Your task to perform on an android device: Play the last video I watched on Youtube Image 0: 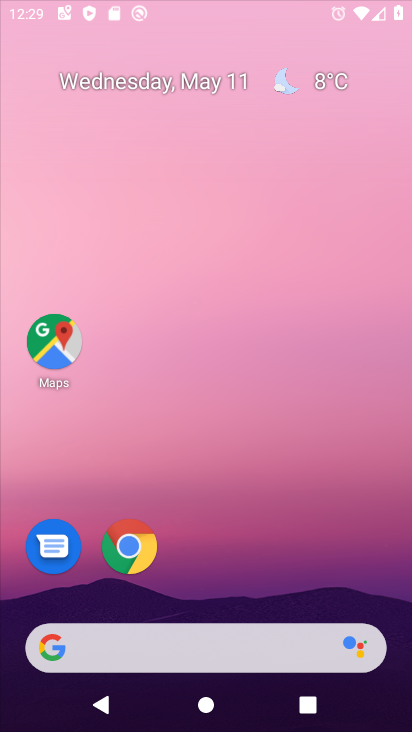
Step 0: click (120, 551)
Your task to perform on an android device: Play the last video I watched on Youtube Image 1: 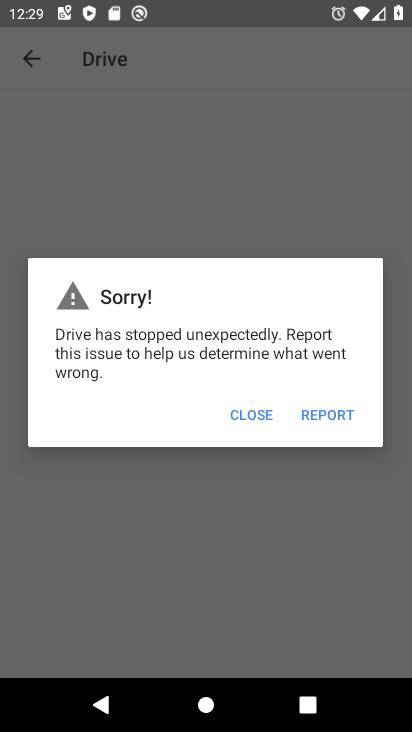
Step 1: press home button
Your task to perform on an android device: Play the last video I watched on Youtube Image 2: 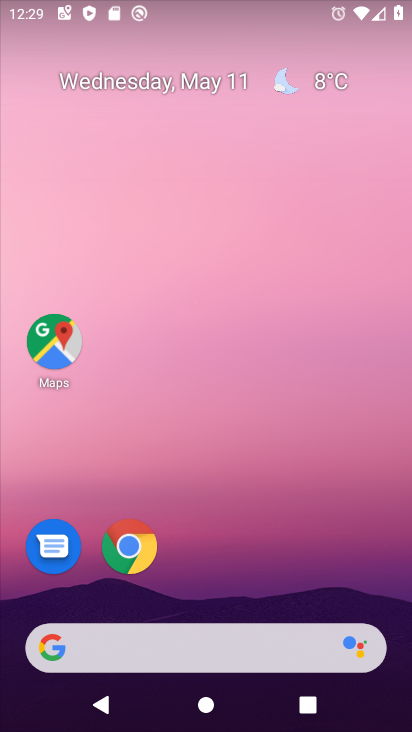
Step 2: drag from (199, 619) to (347, 148)
Your task to perform on an android device: Play the last video I watched on Youtube Image 3: 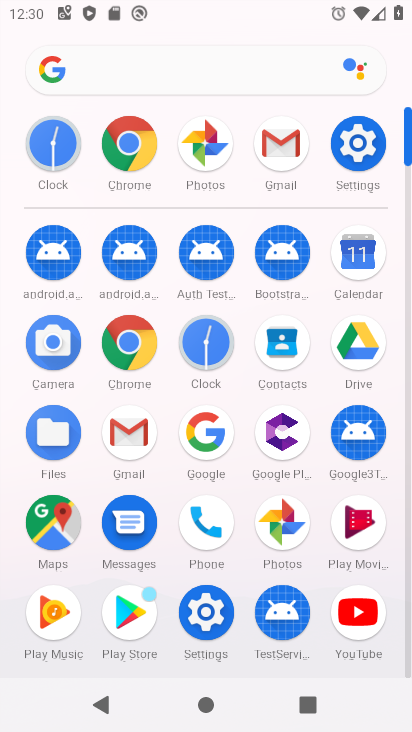
Step 3: click (356, 625)
Your task to perform on an android device: Play the last video I watched on Youtube Image 4: 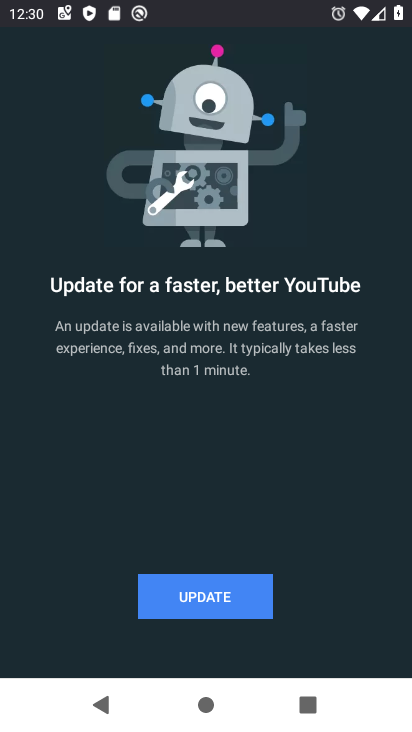
Step 4: click (198, 600)
Your task to perform on an android device: Play the last video I watched on Youtube Image 5: 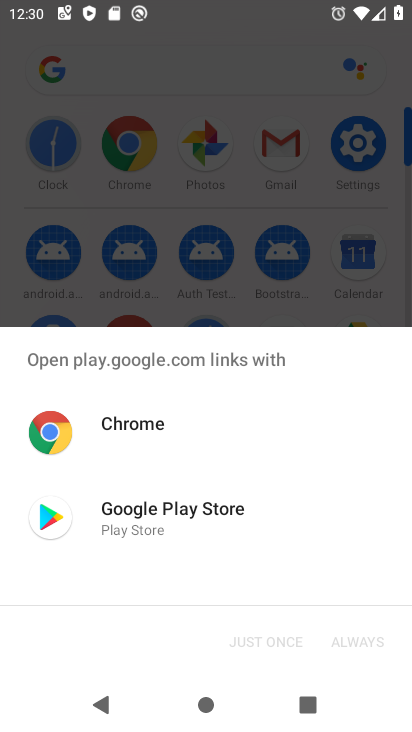
Step 5: click (220, 505)
Your task to perform on an android device: Play the last video I watched on Youtube Image 6: 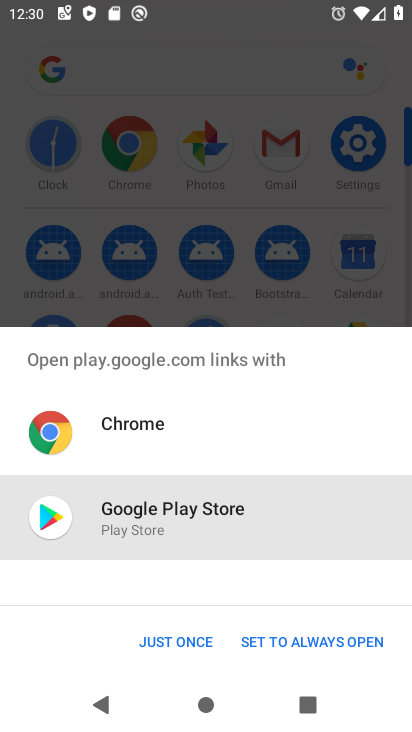
Step 6: click (197, 638)
Your task to perform on an android device: Play the last video I watched on Youtube Image 7: 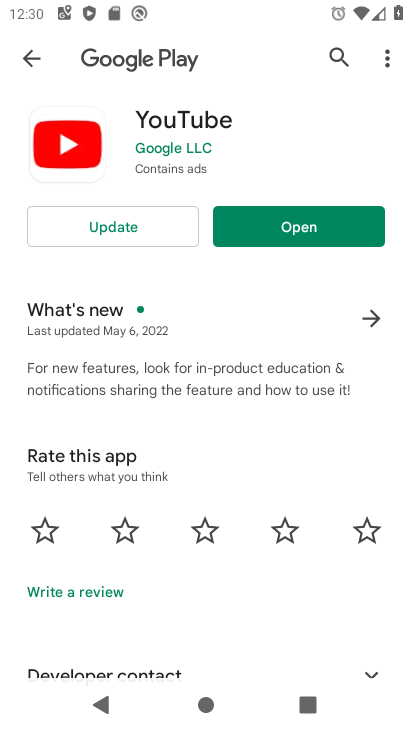
Step 7: click (152, 226)
Your task to perform on an android device: Play the last video I watched on Youtube Image 8: 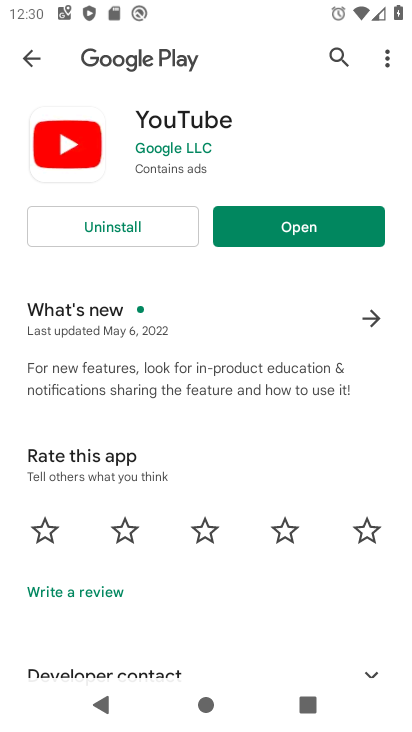
Step 8: click (313, 225)
Your task to perform on an android device: Play the last video I watched on Youtube Image 9: 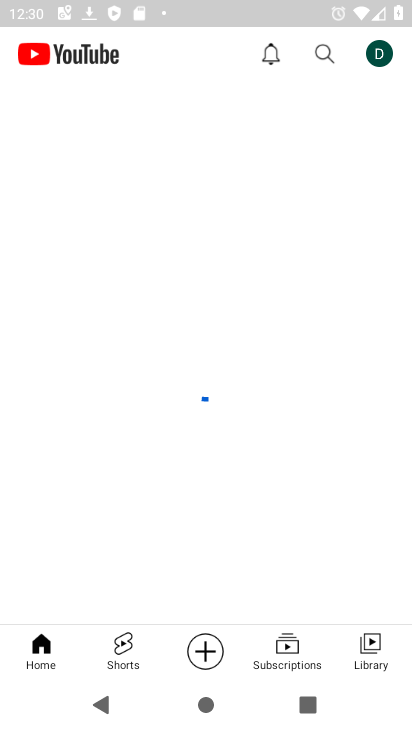
Step 9: click (373, 649)
Your task to perform on an android device: Play the last video I watched on Youtube Image 10: 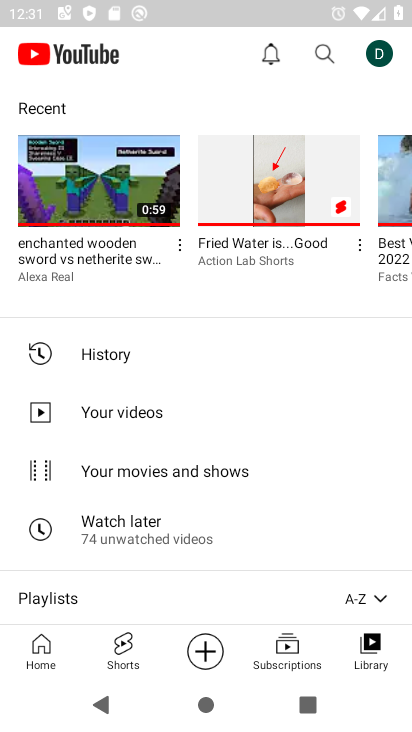
Step 10: click (83, 199)
Your task to perform on an android device: Play the last video I watched on Youtube Image 11: 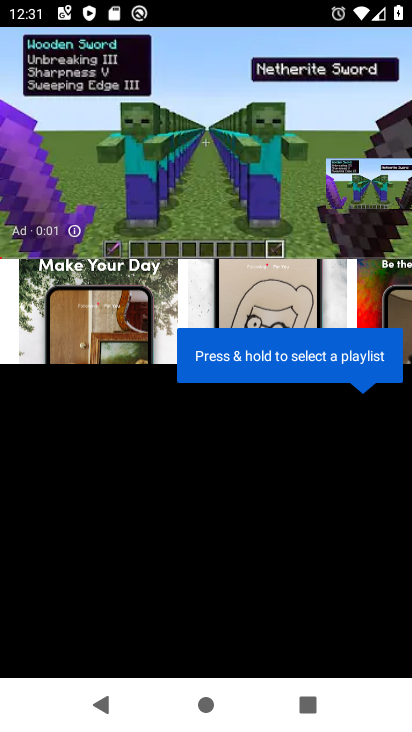
Step 11: click (215, 129)
Your task to perform on an android device: Play the last video I watched on Youtube Image 12: 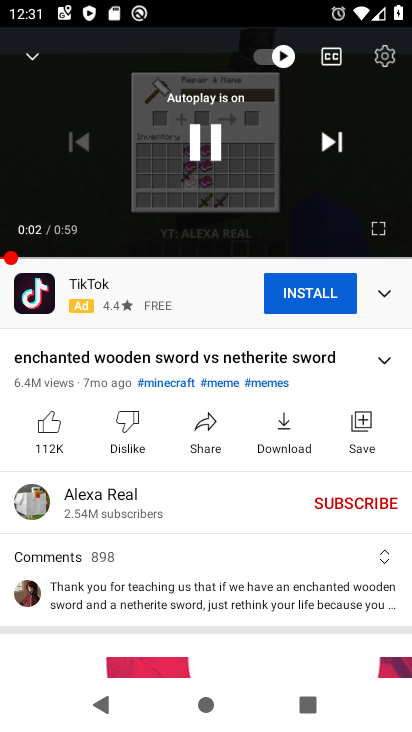
Step 12: click (208, 155)
Your task to perform on an android device: Play the last video I watched on Youtube Image 13: 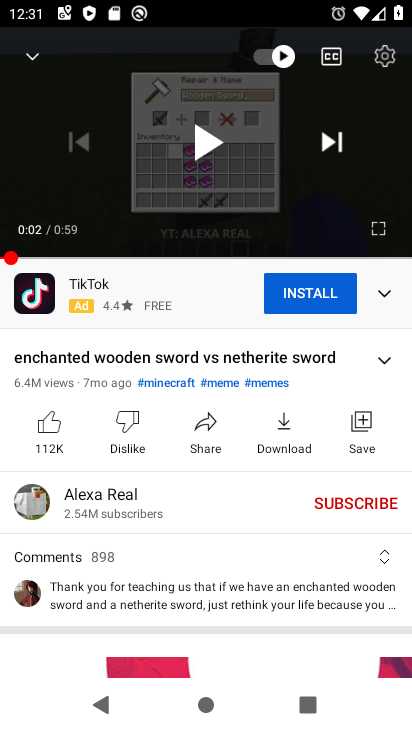
Step 13: task complete